Your task to perform on an android device: Open accessibility settings Image 0: 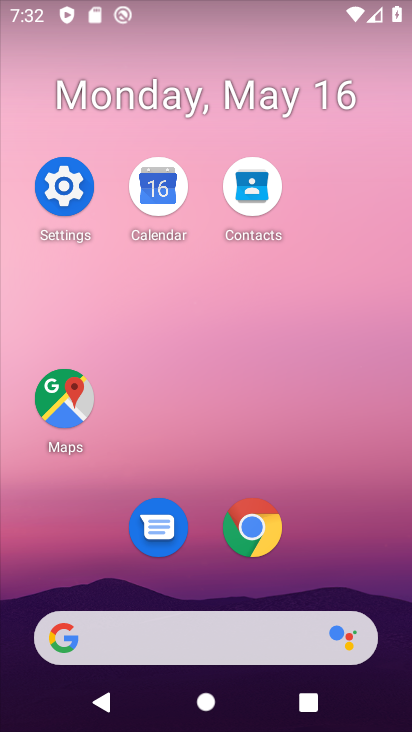
Step 0: click (75, 207)
Your task to perform on an android device: Open accessibility settings Image 1: 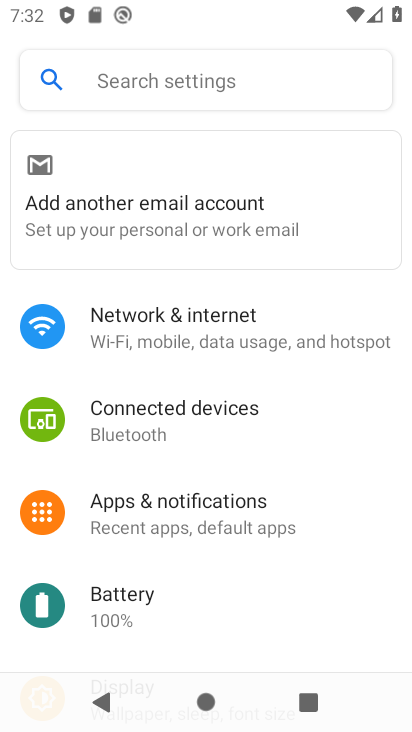
Step 1: drag from (325, 541) to (244, 82)
Your task to perform on an android device: Open accessibility settings Image 2: 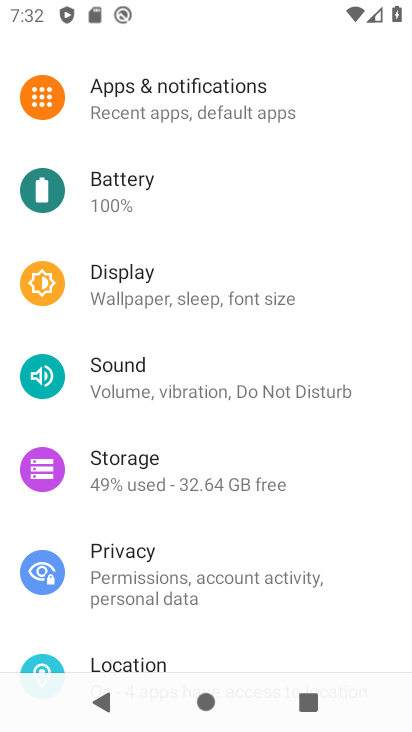
Step 2: drag from (258, 525) to (270, 134)
Your task to perform on an android device: Open accessibility settings Image 3: 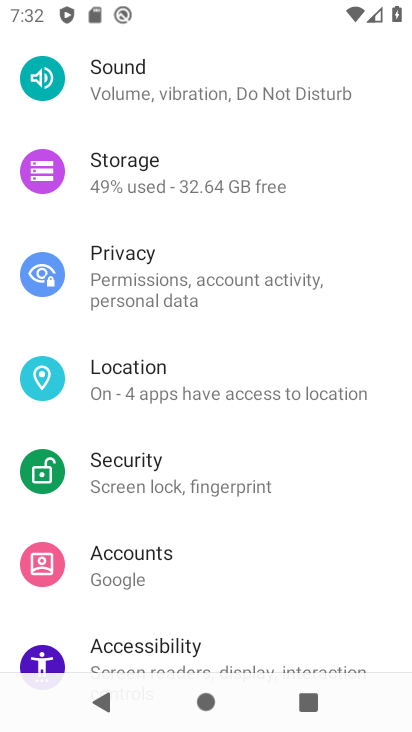
Step 3: drag from (290, 547) to (295, 124)
Your task to perform on an android device: Open accessibility settings Image 4: 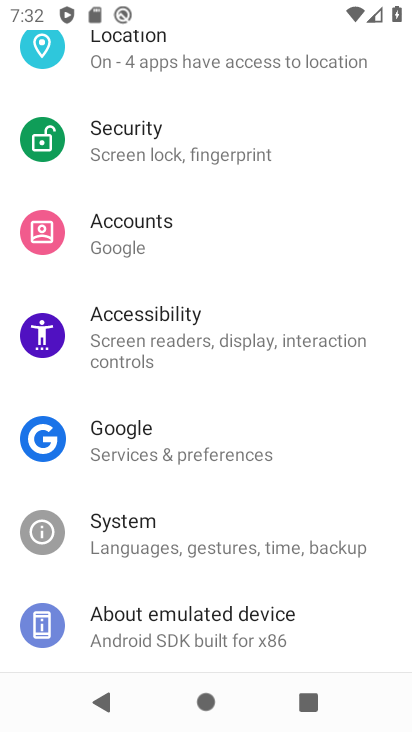
Step 4: click (200, 303)
Your task to perform on an android device: Open accessibility settings Image 5: 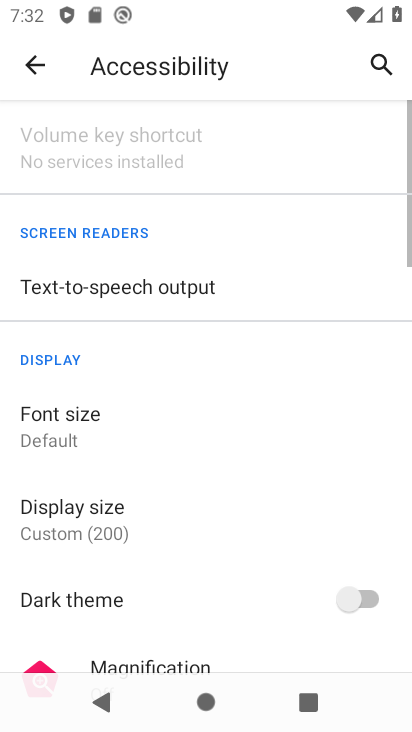
Step 5: task complete